Your task to perform on an android device: toggle javascript in the chrome app Image 0: 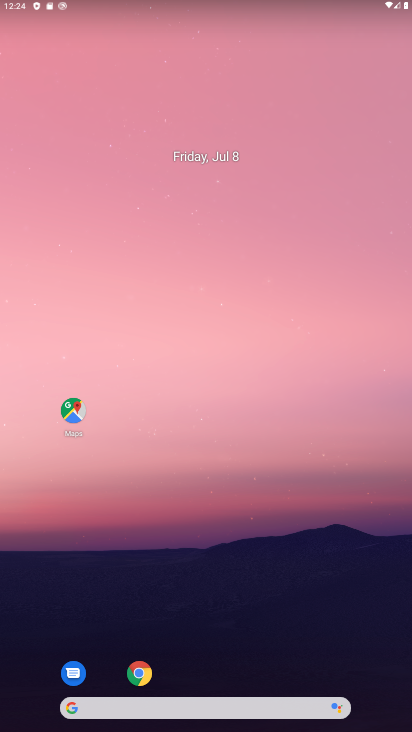
Step 0: press home button
Your task to perform on an android device: toggle javascript in the chrome app Image 1: 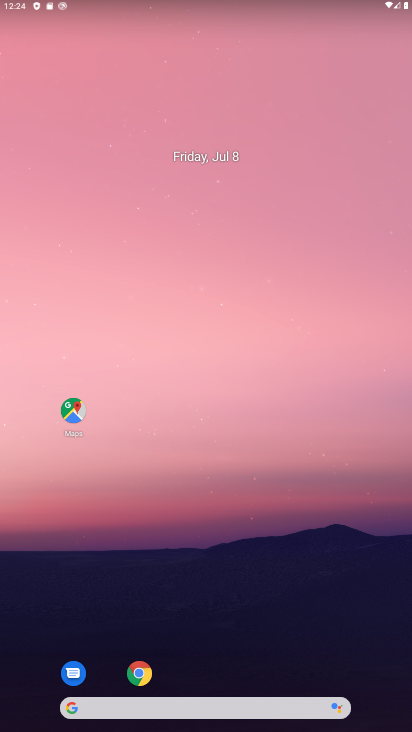
Step 1: click (138, 677)
Your task to perform on an android device: toggle javascript in the chrome app Image 2: 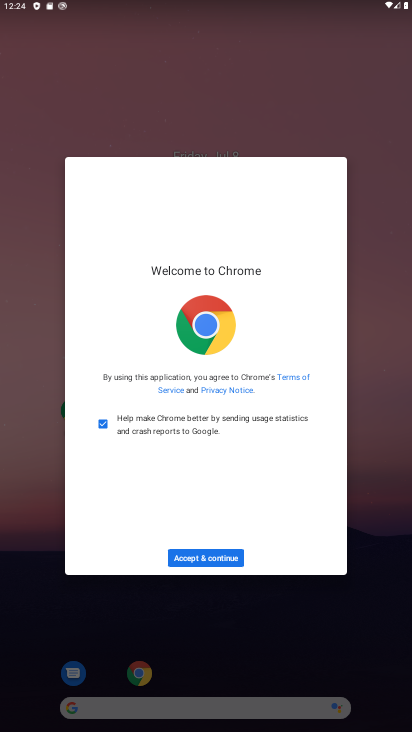
Step 2: click (222, 549)
Your task to perform on an android device: toggle javascript in the chrome app Image 3: 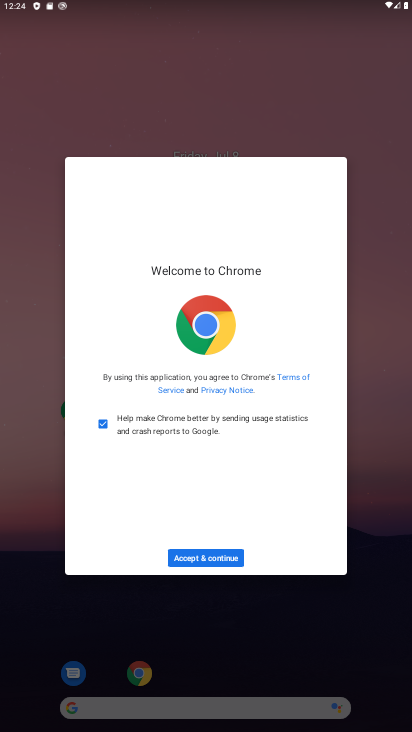
Step 3: click (229, 552)
Your task to perform on an android device: toggle javascript in the chrome app Image 4: 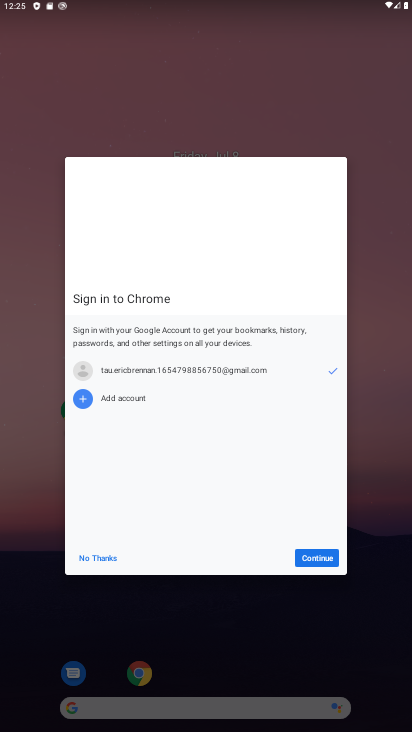
Step 4: click (89, 557)
Your task to perform on an android device: toggle javascript in the chrome app Image 5: 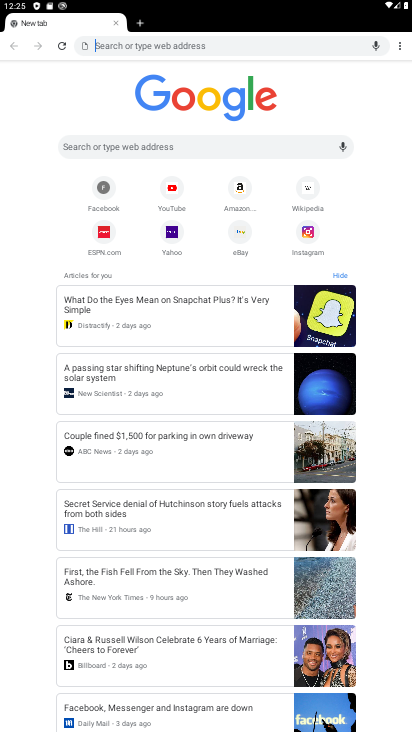
Step 5: drag from (398, 39) to (315, 218)
Your task to perform on an android device: toggle javascript in the chrome app Image 6: 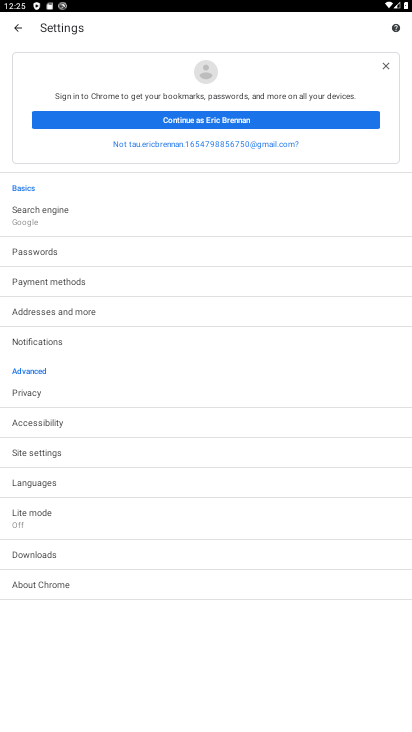
Step 6: click (59, 449)
Your task to perform on an android device: toggle javascript in the chrome app Image 7: 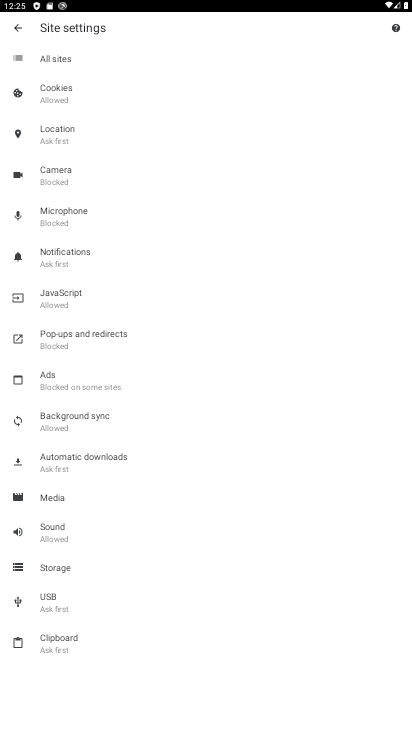
Step 7: click (69, 291)
Your task to perform on an android device: toggle javascript in the chrome app Image 8: 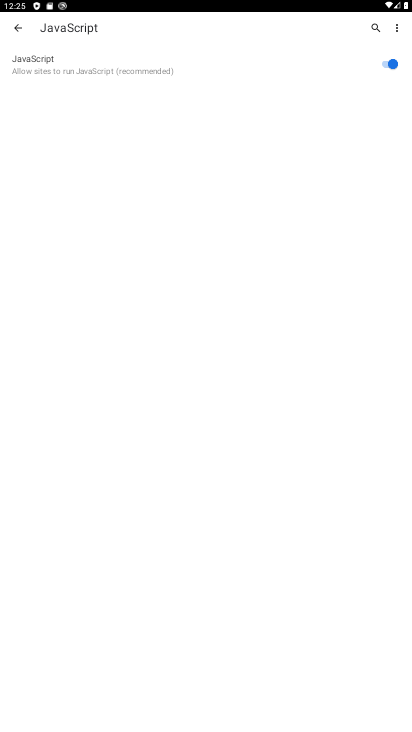
Step 8: click (385, 59)
Your task to perform on an android device: toggle javascript in the chrome app Image 9: 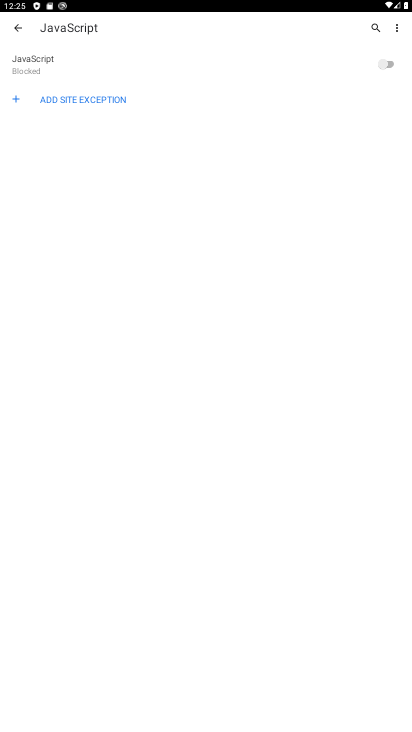
Step 9: task complete